Your task to perform on an android device: turn off wifi Image 0: 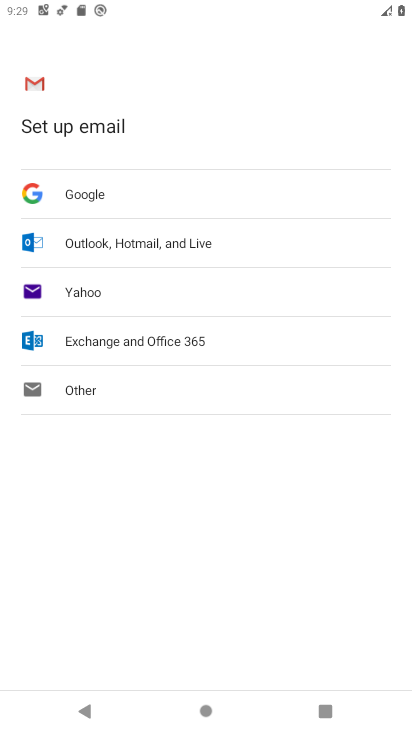
Step 0: press home button
Your task to perform on an android device: turn off wifi Image 1: 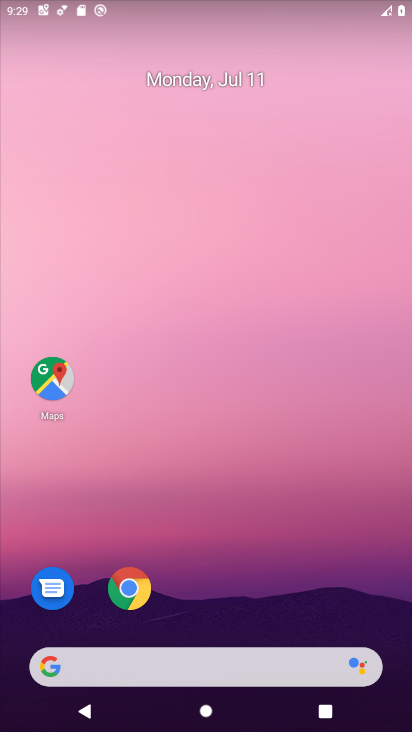
Step 1: drag from (256, 593) to (244, 232)
Your task to perform on an android device: turn off wifi Image 2: 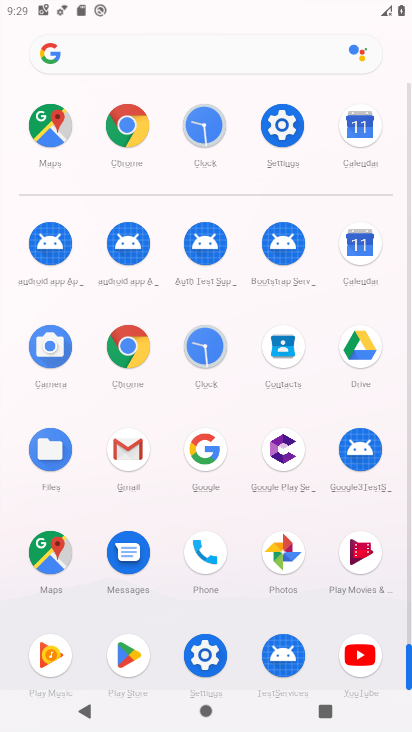
Step 2: click (283, 125)
Your task to perform on an android device: turn off wifi Image 3: 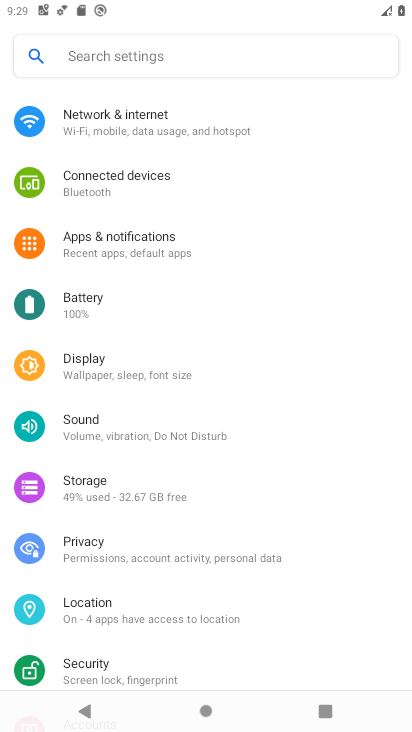
Step 3: click (148, 135)
Your task to perform on an android device: turn off wifi Image 4: 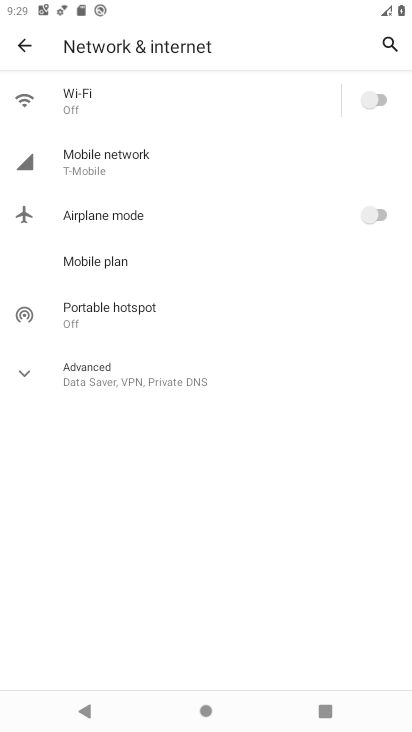
Step 4: click (112, 98)
Your task to perform on an android device: turn off wifi Image 5: 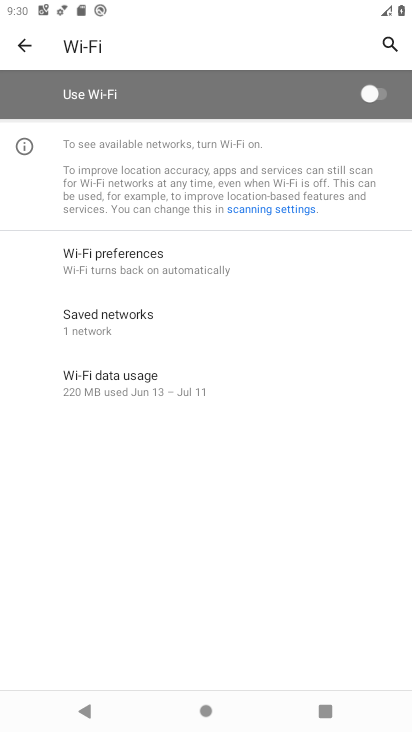
Step 5: task complete